Your task to perform on an android device: turn off sleep mode Image 0: 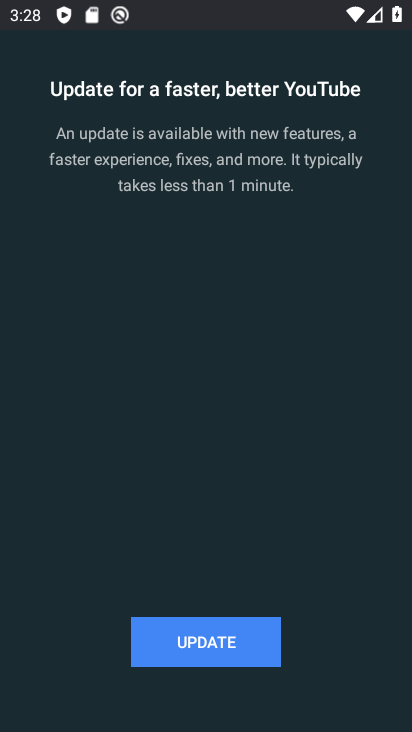
Step 0: press home button
Your task to perform on an android device: turn off sleep mode Image 1: 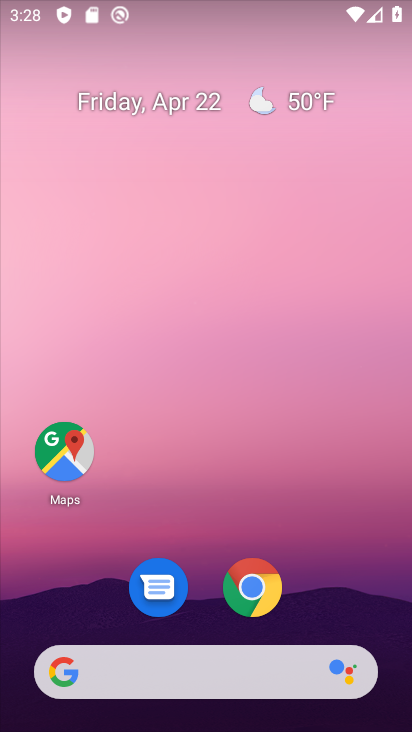
Step 1: drag from (337, 608) to (344, 20)
Your task to perform on an android device: turn off sleep mode Image 2: 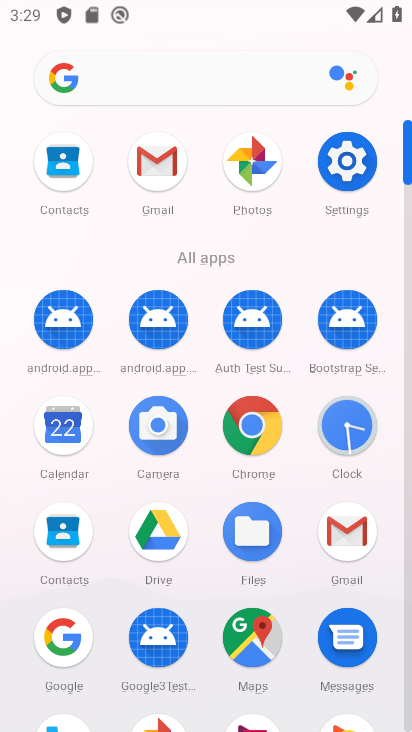
Step 2: click (356, 160)
Your task to perform on an android device: turn off sleep mode Image 3: 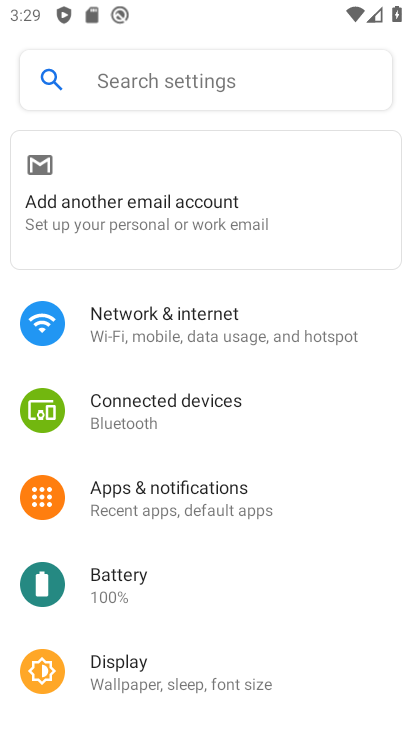
Step 3: click (126, 679)
Your task to perform on an android device: turn off sleep mode Image 4: 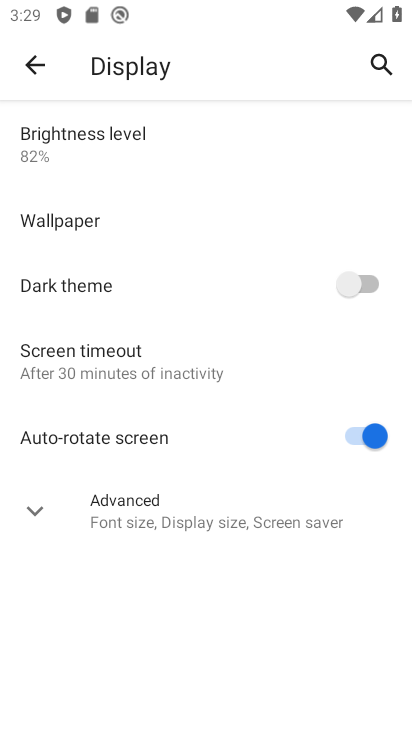
Step 4: click (31, 523)
Your task to perform on an android device: turn off sleep mode Image 5: 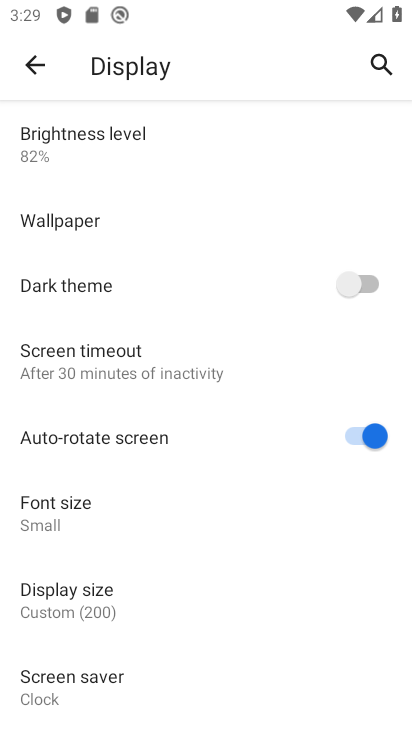
Step 5: task complete